Your task to perform on an android device: Is it going to rain this weekend? Image 0: 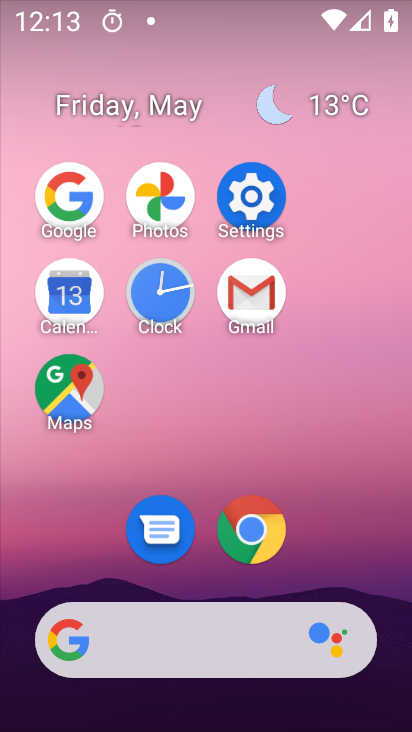
Step 0: click (60, 221)
Your task to perform on an android device: Is it going to rain this weekend? Image 1: 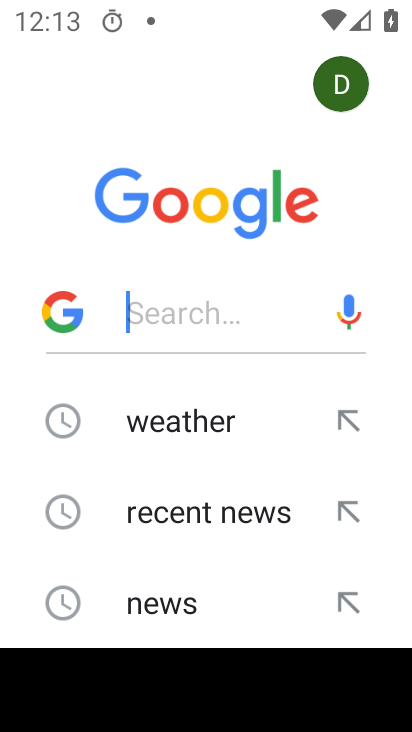
Step 1: click (165, 448)
Your task to perform on an android device: Is it going to rain this weekend? Image 2: 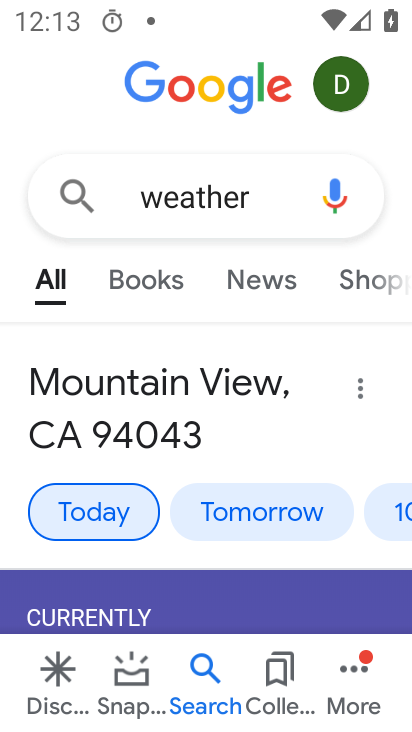
Step 2: click (394, 509)
Your task to perform on an android device: Is it going to rain this weekend? Image 3: 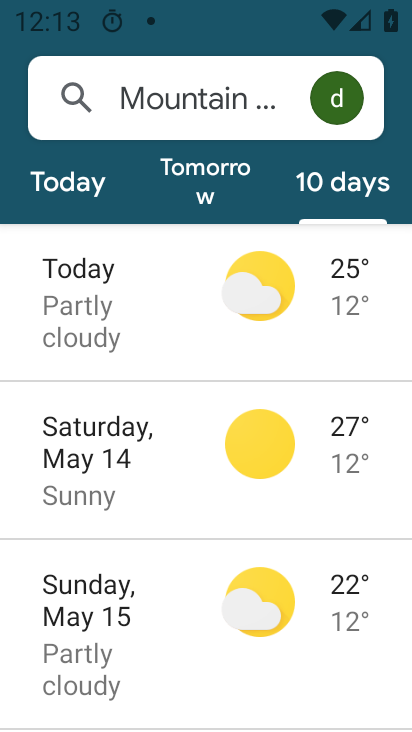
Step 3: click (119, 428)
Your task to perform on an android device: Is it going to rain this weekend? Image 4: 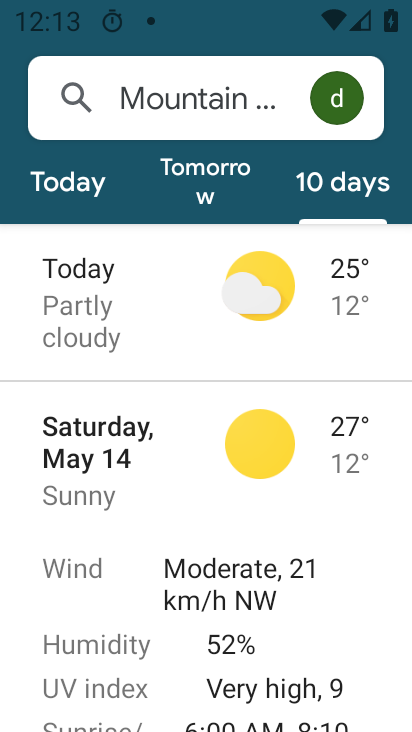
Step 4: task complete